Your task to perform on an android device: Go to Android settings Image 0: 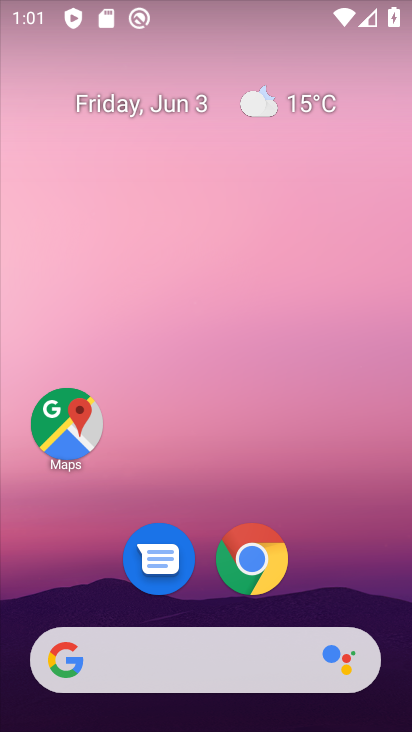
Step 0: drag from (73, 623) to (215, 150)
Your task to perform on an android device: Go to Android settings Image 1: 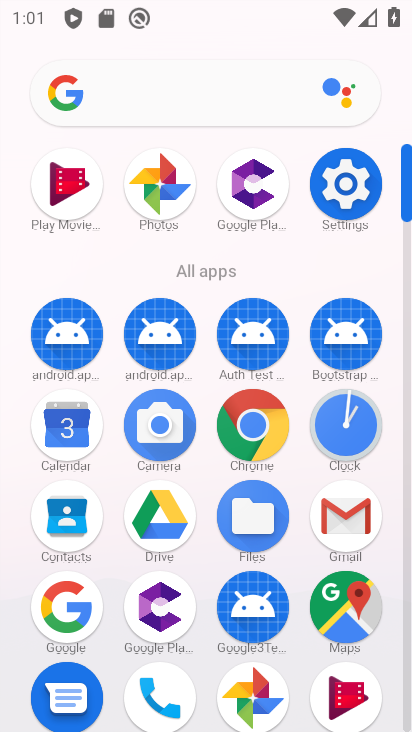
Step 1: drag from (210, 610) to (313, 348)
Your task to perform on an android device: Go to Android settings Image 2: 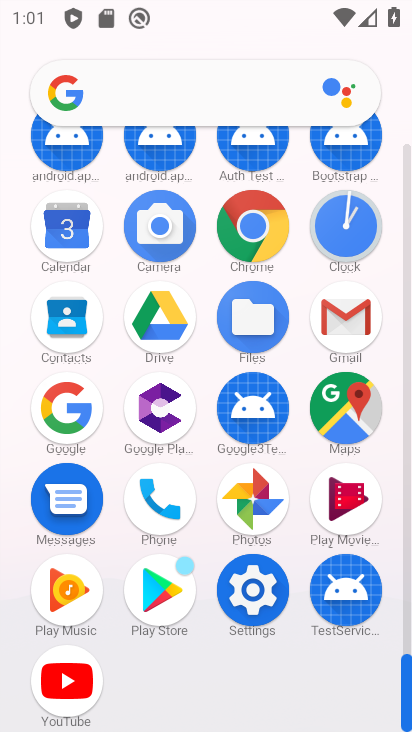
Step 2: click (251, 607)
Your task to perform on an android device: Go to Android settings Image 3: 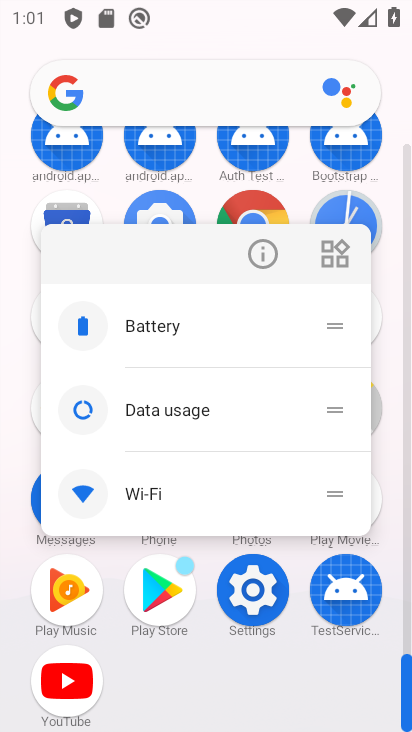
Step 3: click (265, 587)
Your task to perform on an android device: Go to Android settings Image 4: 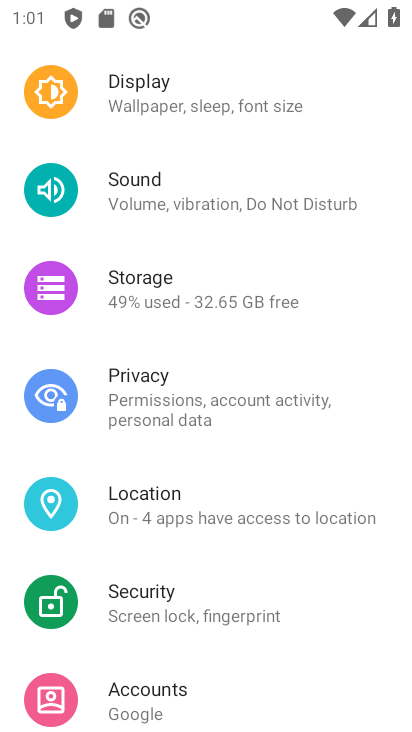
Step 4: task complete